Your task to perform on an android device: Show me popular games on the Play Store Image 0: 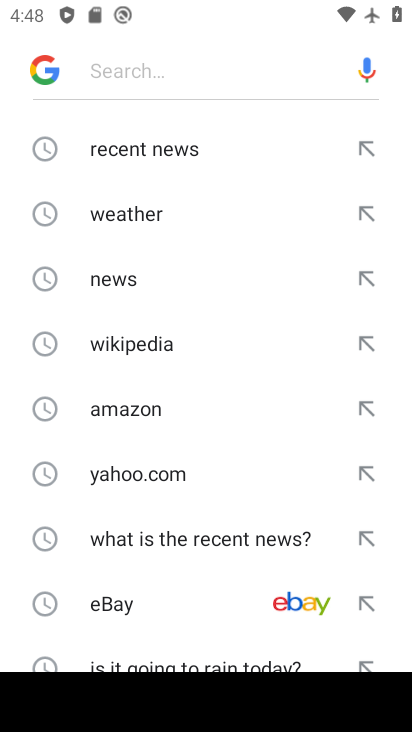
Step 0: press home button
Your task to perform on an android device: Show me popular games on the Play Store Image 1: 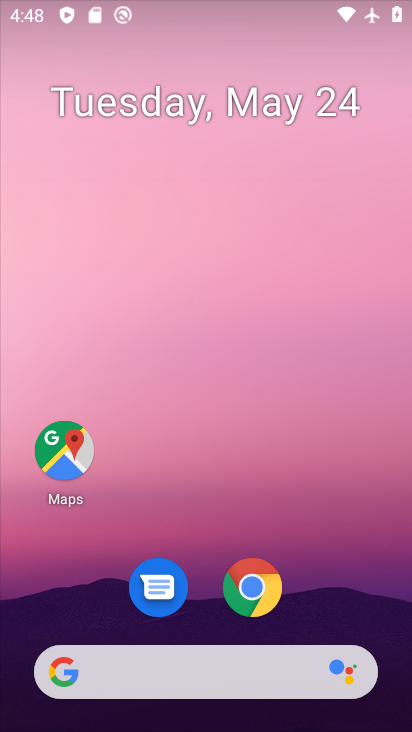
Step 1: click (248, 581)
Your task to perform on an android device: Show me popular games on the Play Store Image 2: 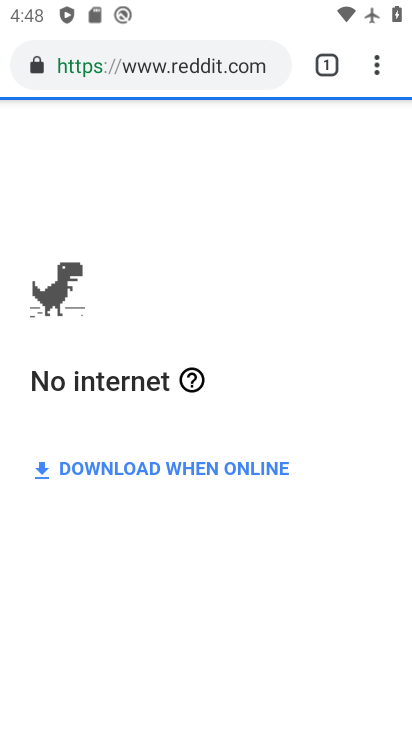
Step 2: click (336, 61)
Your task to perform on an android device: Show me popular games on the Play Store Image 3: 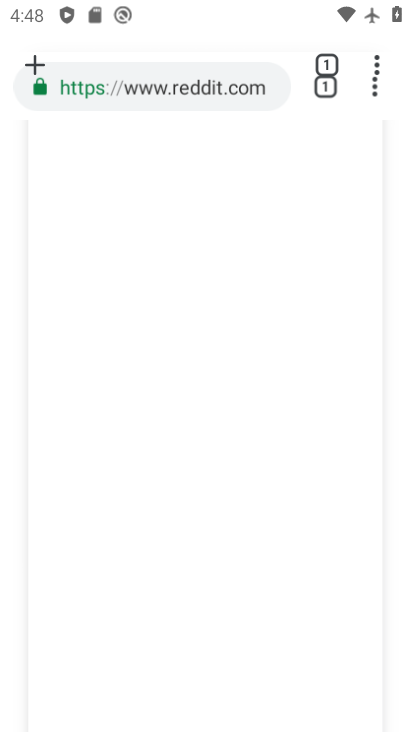
Step 3: click (32, 67)
Your task to perform on an android device: Show me popular games on the Play Store Image 4: 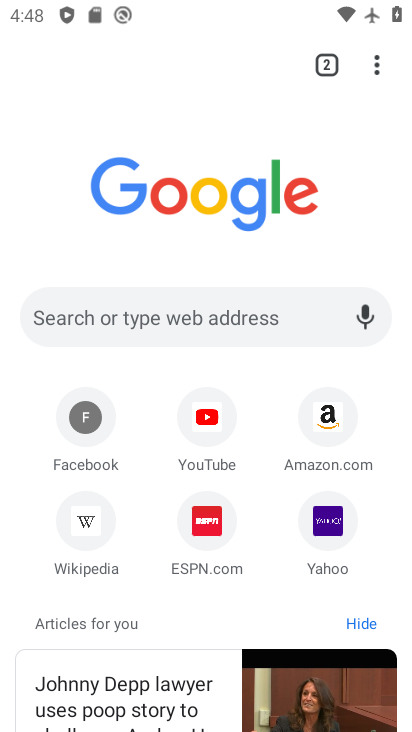
Step 4: click (319, 533)
Your task to perform on an android device: Show me popular games on the Play Store Image 5: 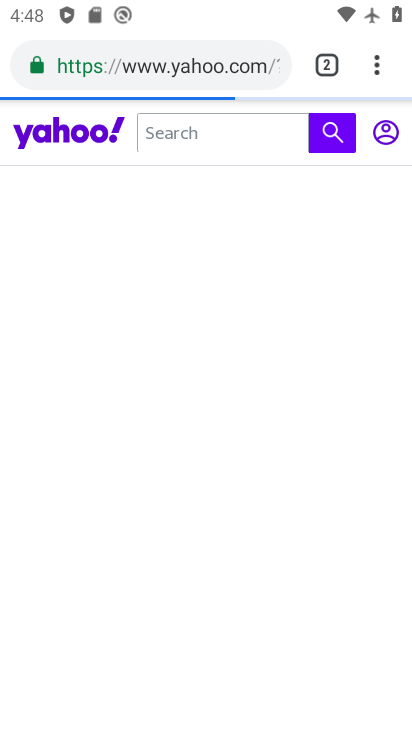
Step 5: press home button
Your task to perform on an android device: Show me popular games on the Play Store Image 6: 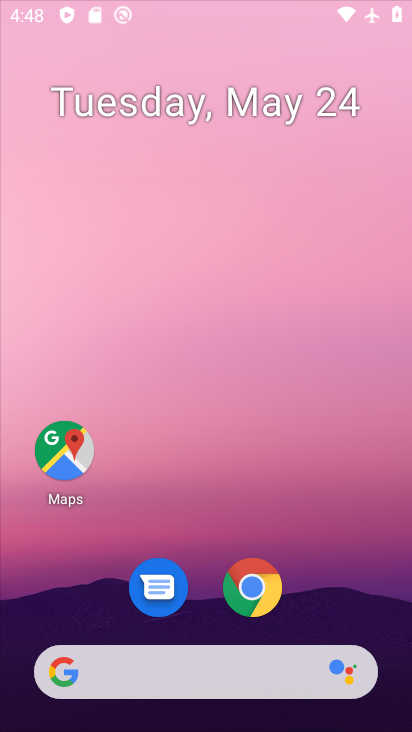
Step 6: drag from (308, 1) to (63, 25)
Your task to perform on an android device: Show me popular games on the Play Store Image 7: 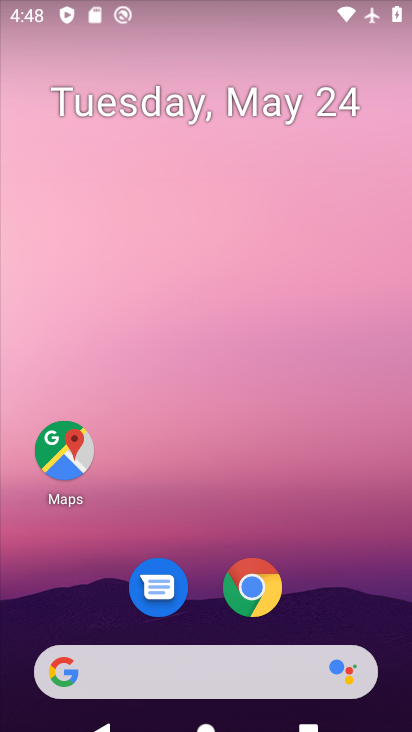
Step 7: drag from (336, 553) to (245, 18)
Your task to perform on an android device: Show me popular games on the Play Store Image 8: 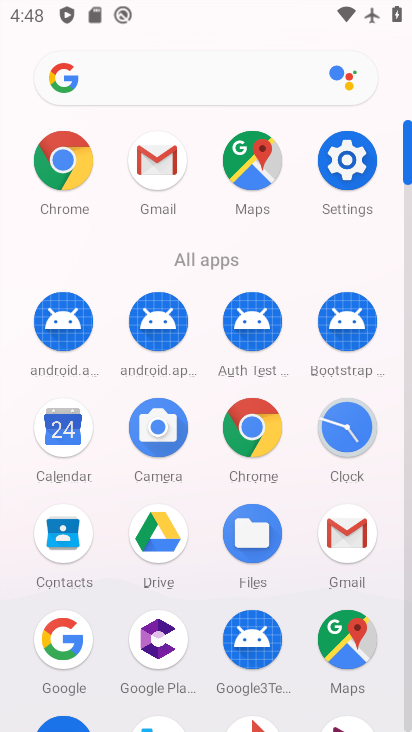
Step 8: drag from (209, 677) to (200, 163)
Your task to perform on an android device: Show me popular games on the Play Store Image 9: 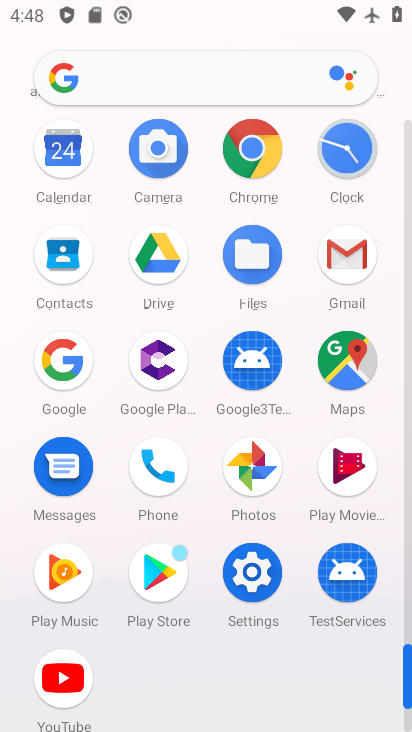
Step 9: click (161, 582)
Your task to perform on an android device: Show me popular games on the Play Store Image 10: 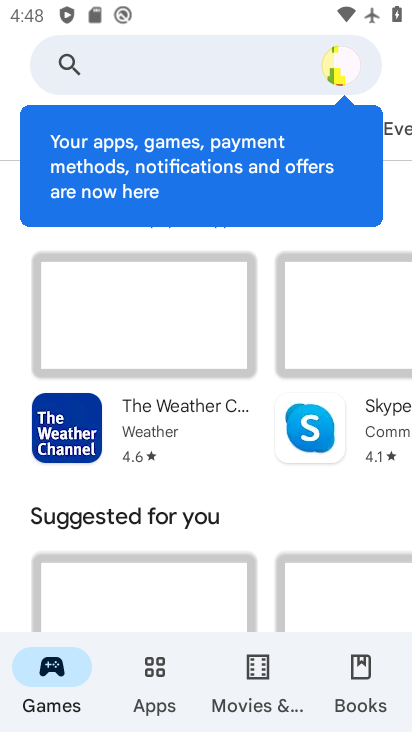
Step 10: click (11, 182)
Your task to perform on an android device: Show me popular games on the Play Store Image 11: 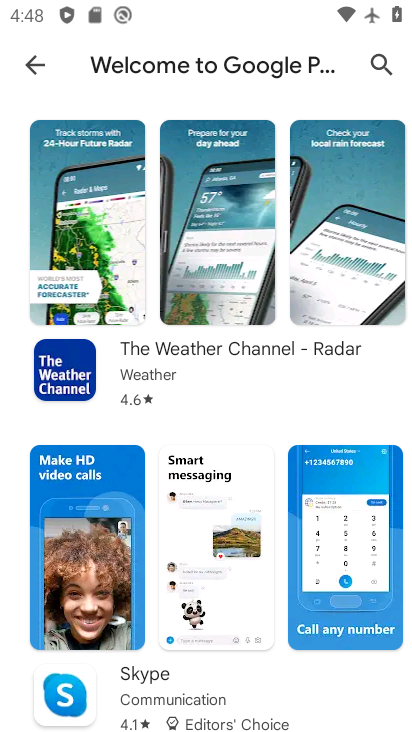
Step 11: click (30, 58)
Your task to perform on an android device: Show me popular games on the Play Store Image 12: 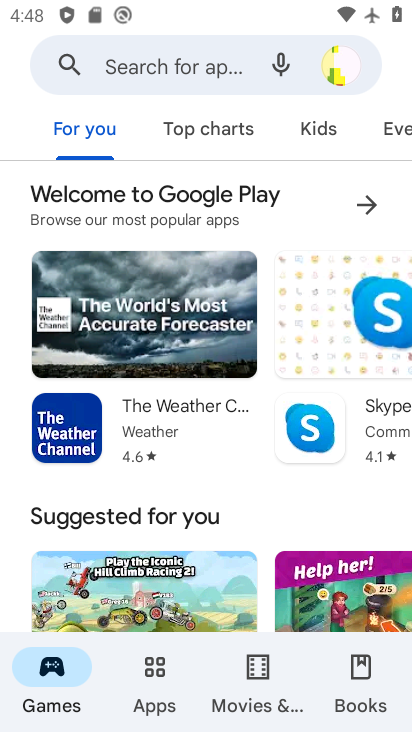
Step 12: click (199, 134)
Your task to perform on an android device: Show me popular games on the Play Store Image 13: 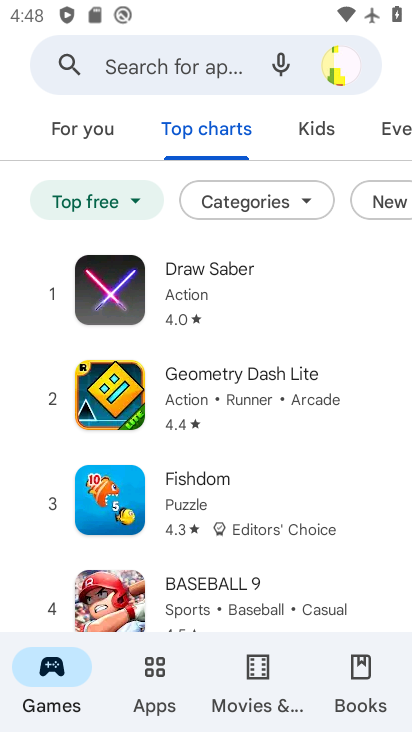
Step 13: task complete